Your task to perform on an android device: toggle location history Image 0: 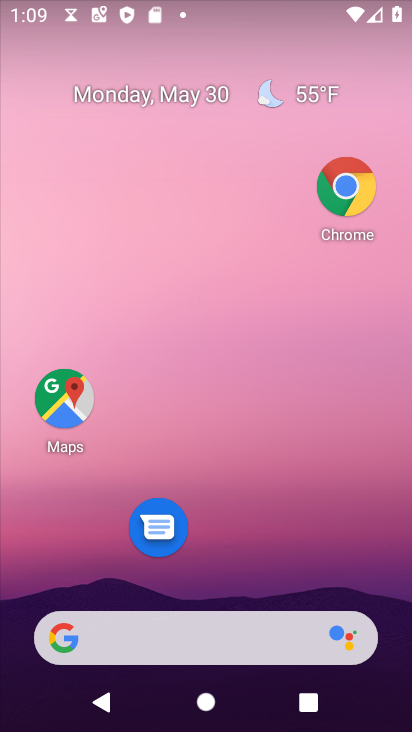
Step 0: click (265, 96)
Your task to perform on an android device: toggle location history Image 1: 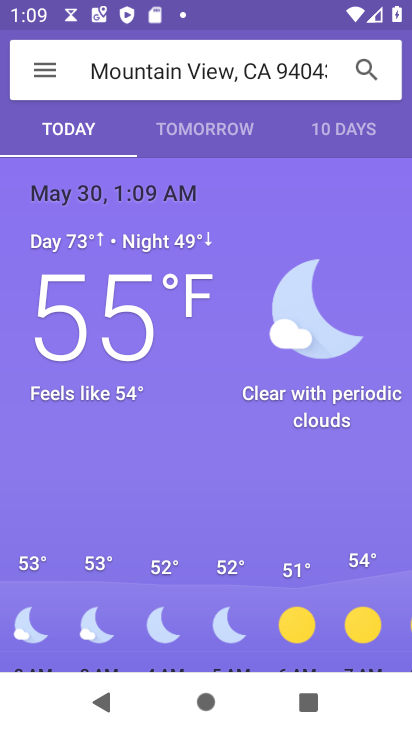
Step 1: press back button
Your task to perform on an android device: toggle location history Image 2: 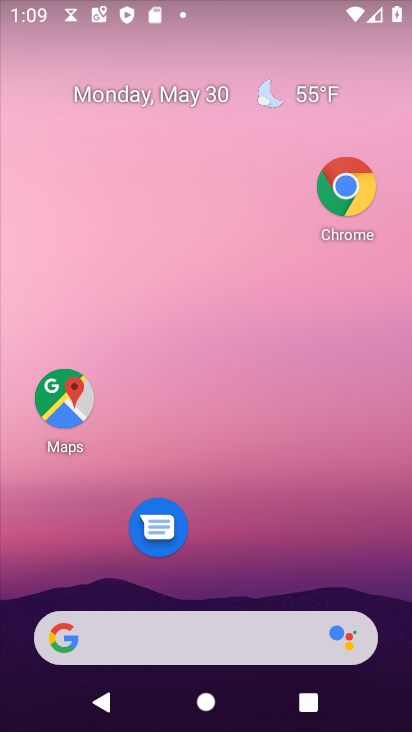
Step 2: drag from (219, 593) to (239, 320)
Your task to perform on an android device: toggle location history Image 3: 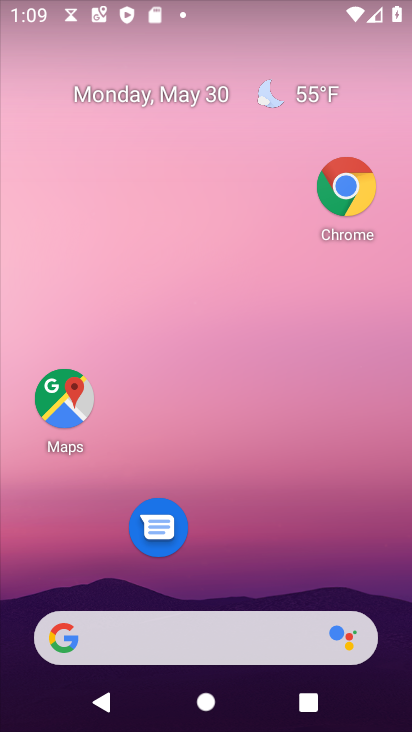
Step 3: drag from (231, 587) to (275, 177)
Your task to perform on an android device: toggle location history Image 4: 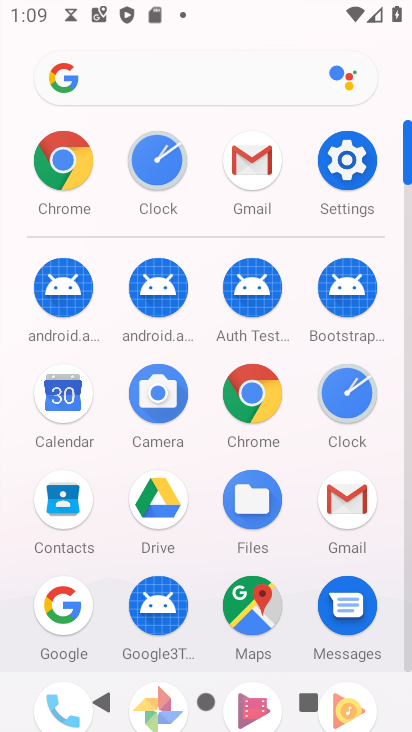
Step 4: click (344, 154)
Your task to perform on an android device: toggle location history Image 5: 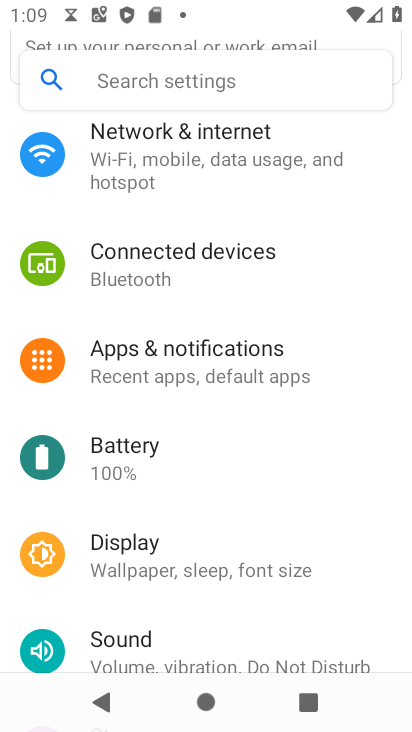
Step 5: drag from (187, 591) to (279, 164)
Your task to perform on an android device: toggle location history Image 6: 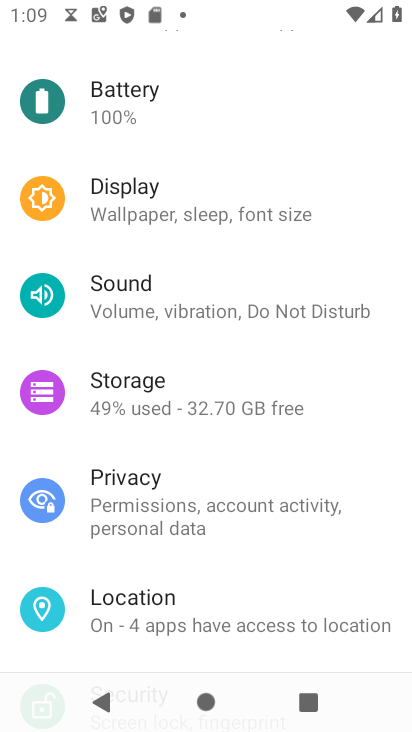
Step 6: click (169, 586)
Your task to perform on an android device: toggle location history Image 7: 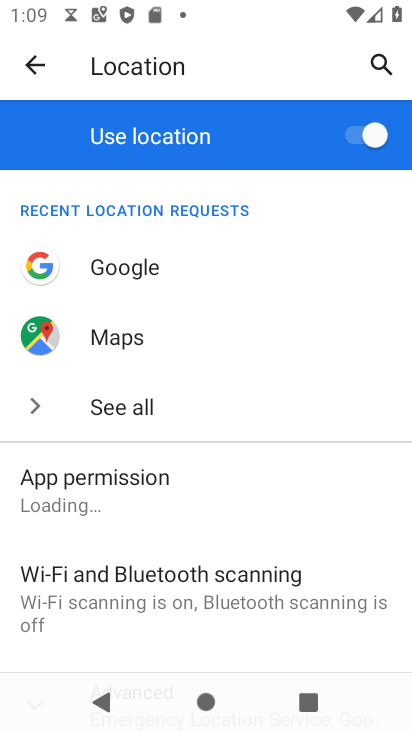
Step 7: drag from (158, 579) to (256, 162)
Your task to perform on an android device: toggle location history Image 8: 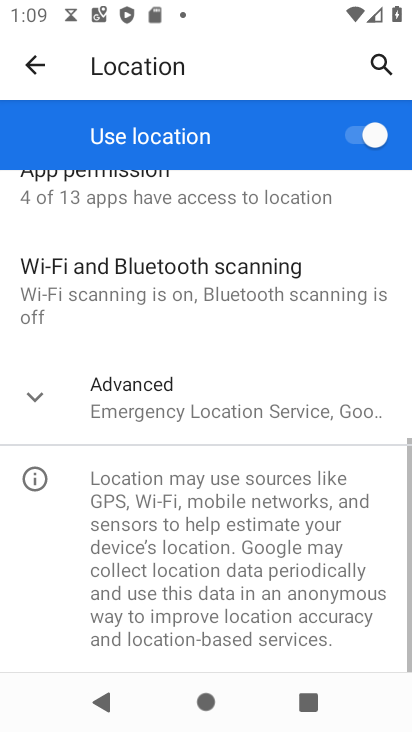
Step 8: click (153, 361)
Your task to perform on an android device: toggle location history Image 9: 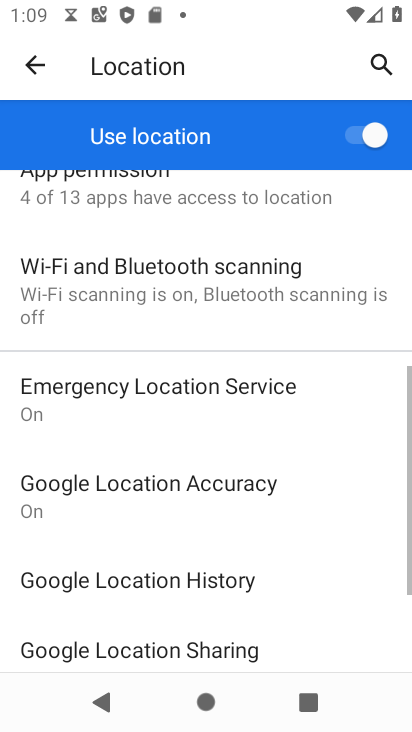
Step 9: drag from (271, 473) to (278, 351)
Your task to perform on an android device: toggle location history Image 10: 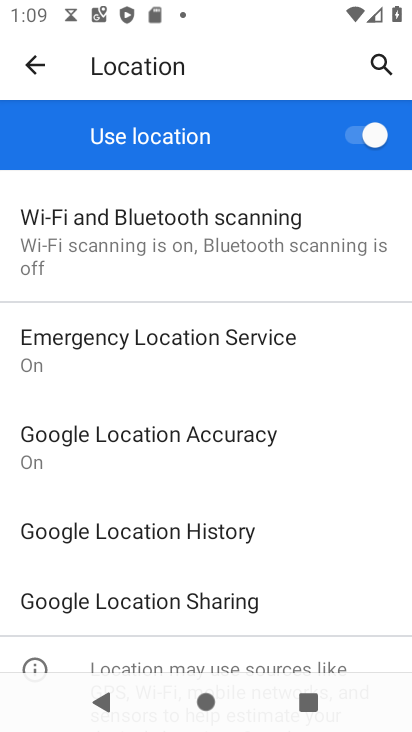
Step 10: click (199, 534)
Your task to perform on an android device: toggle location history Image 11: 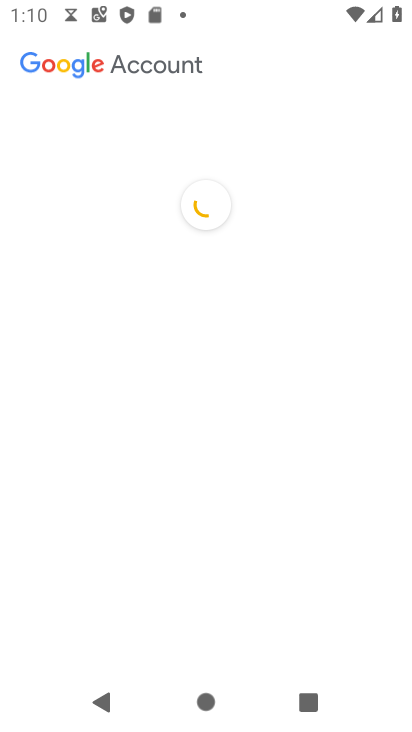
Step 11: drag from (219, 624) to (273, 319)
Your task to perform on an android device: toggle location history Image 12: 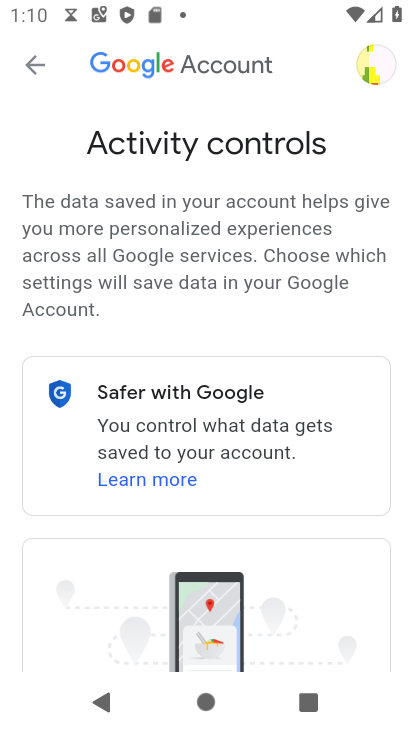
Step 12: drag from (245, 462) to (276, 253)
Your task to perform on an android device: toggle location history Image 13: 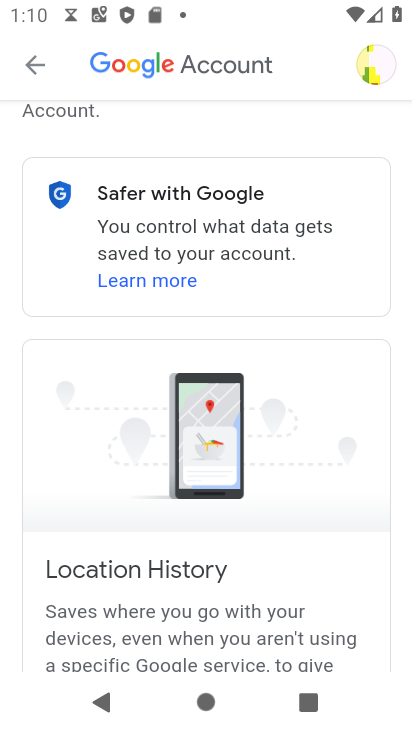
Step 13: drag from (273, 539) to (284, 234)
Your task to perform on an android device: toggle location history Image 14: 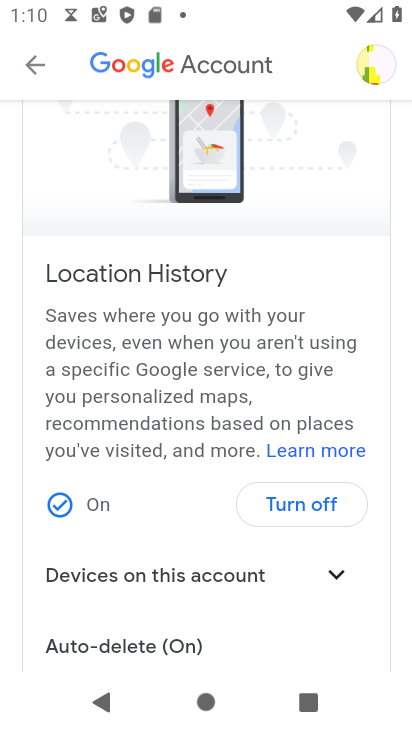
Step 14: click (304, 499)
Your task to perform on an android device: toggle location history Image 15: 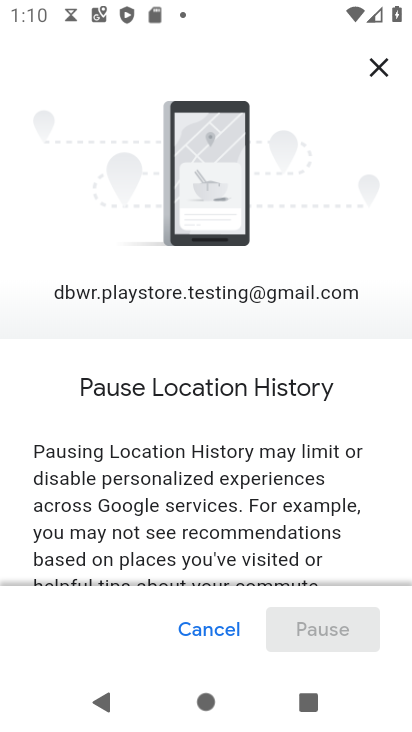
Step 15: drag from (242, 521) to (368, 19)
Your task to perform on an android device: toggle location history Image 16: 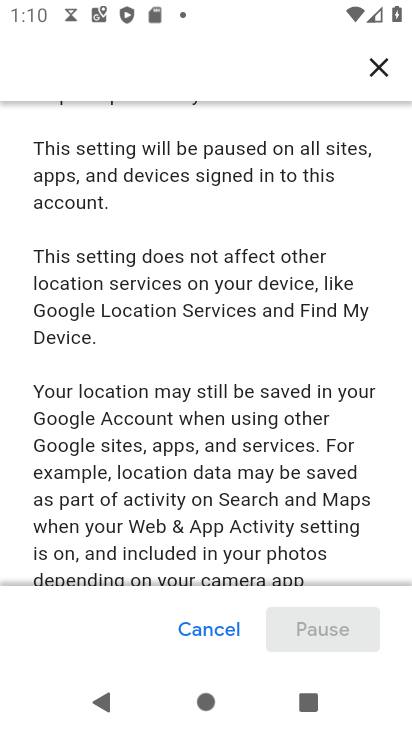
Step 16: drag from (209, 519) to (298, 95)
Your task to perform on an android device: toggle location history Image 17: 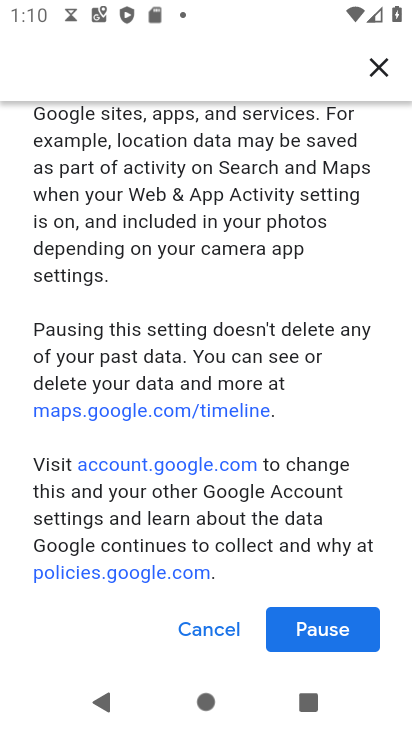
Step 17: drag from (208, 485) to (274, 161)
Your task to perform on an android device: toggle location history Image 18: 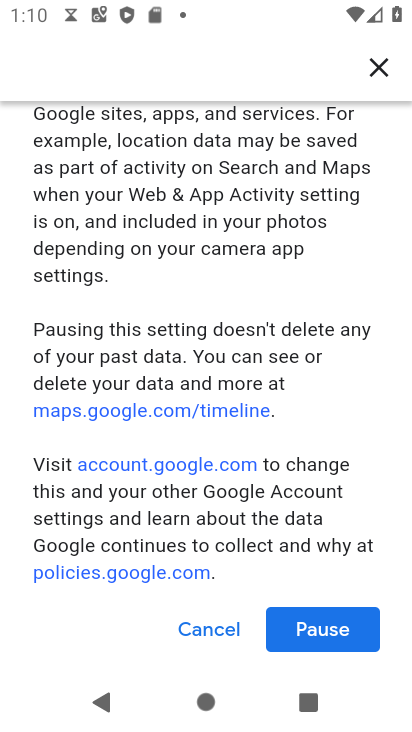
Step 18: click (300, 628)
Your task to perform on an android device: toggle location history Image 19: 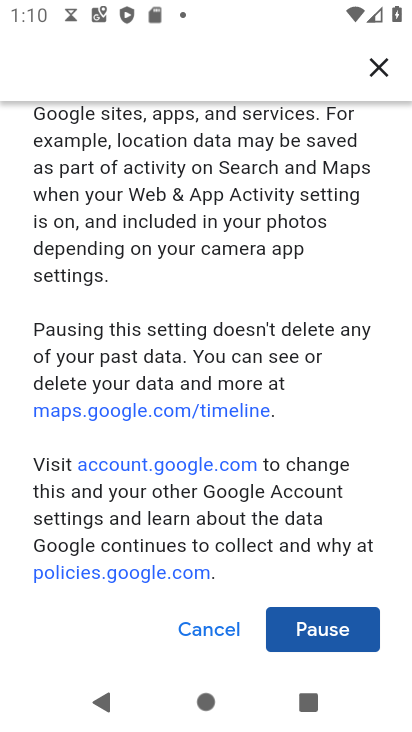
Step 19: task complete